Your task to perform on an android device: Open location settings Image 0: 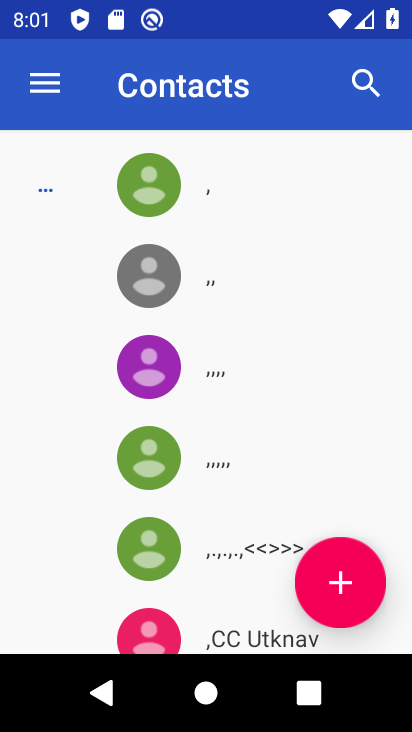
Step 0: press home button
Your task to perform on an android device: Open location settings Image 1: 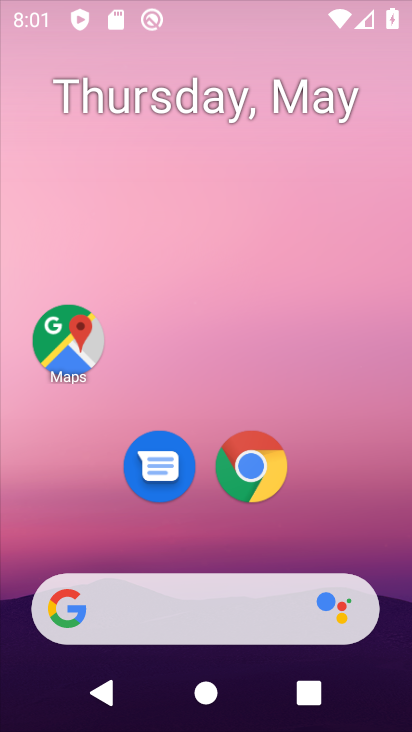
Step 1: drag from (253, 565) to (258, 41)
Your task to perform on an android device: Open location settings Image 2: 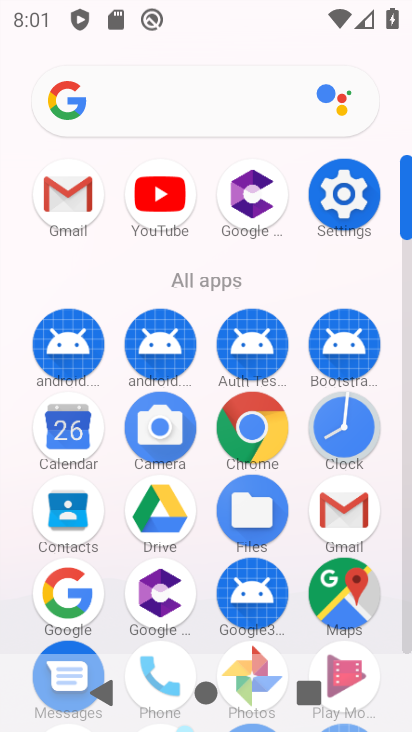
Step 2: click (342, 196)
Your task to perform on an android device: Open location settings Image 3: 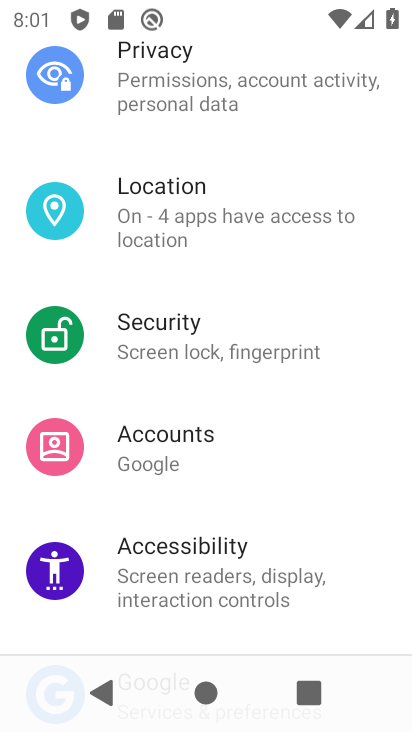
Step 3: click (198, 246)
Your task to perform on an android device: Open location settings Image 4: 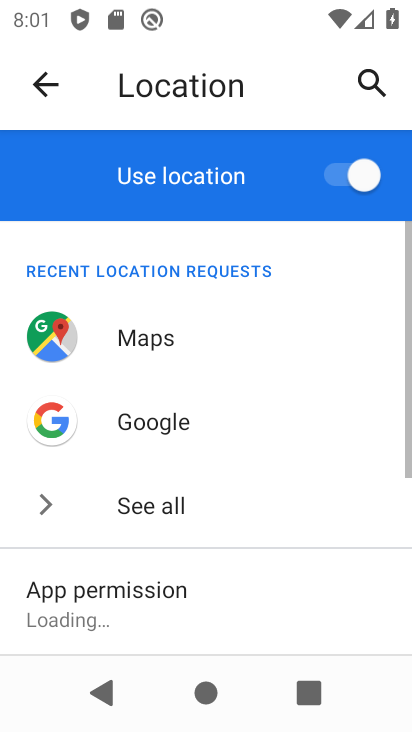
Step 4: task complete